Your task to perform on an android device: set default search engine in the chrome app Image 0: 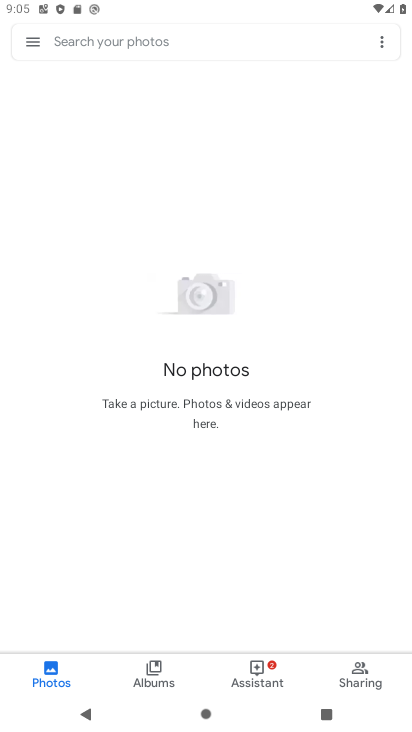
Step 0: press home button
Your task to perform on an android device: set default search engine in the chrome app Image 1: 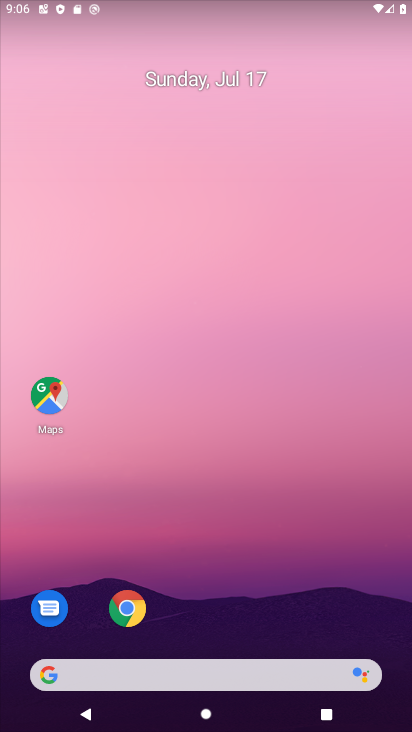
Step 1: click (130, 610)
Your task to perform on an android device: set default search engine in the chrome app Image 2: 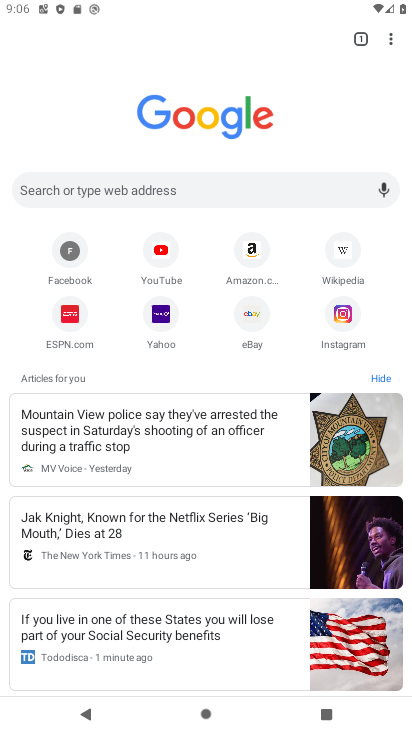
Step 2: click (392, 39)
Your task to perform on an android device: set default search engine in the chrome app Image 3: 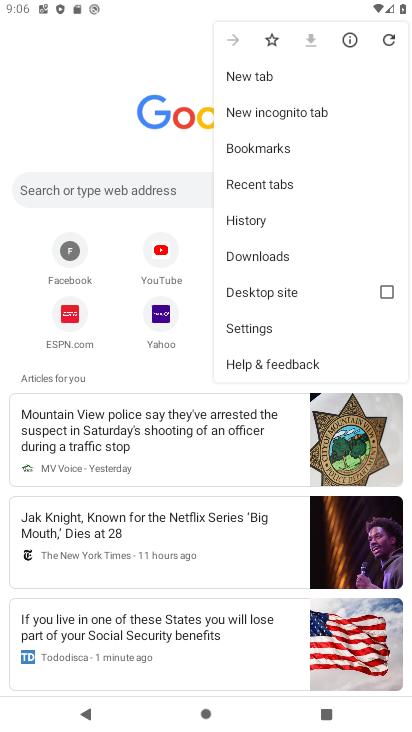
Step 3: click (256, 327)
Your task to perform on an android device: set default search engine in the chrome app Image 4: 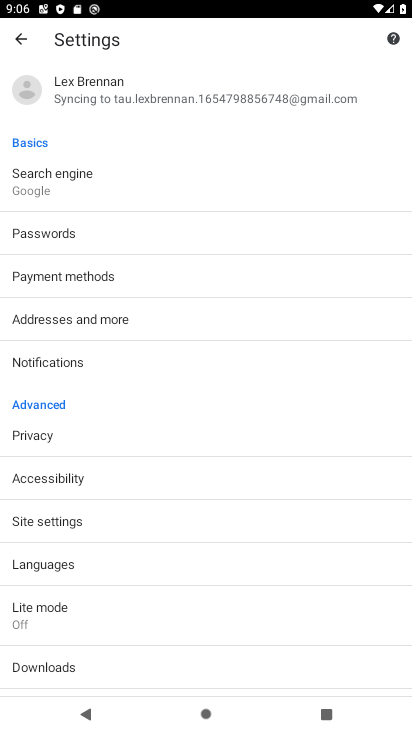
Step 4: click (99, 196)
Your task to perform on an android device: set default search engine in the chrome app Image 5: 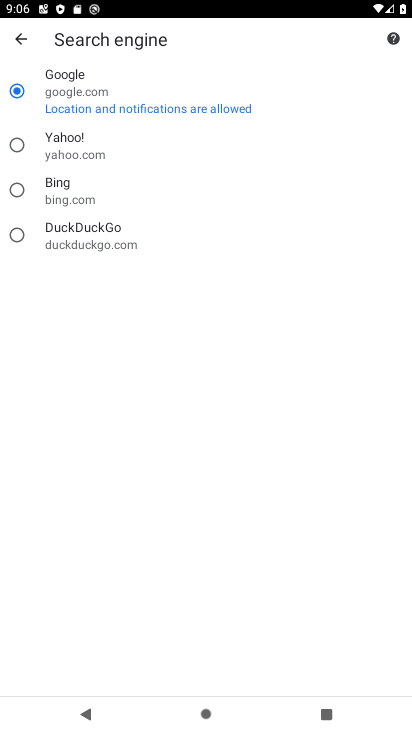
Step 5: click (22, 91)
Your task to perform on an android device: set default search engine in the chrome app Image 6: 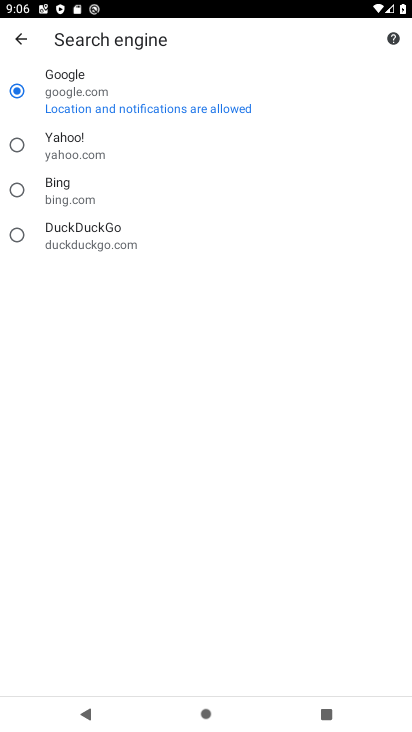
Step 6: task complete